Your task to perform on an android device: Search for Mexican restaurants on Maps Image 0: 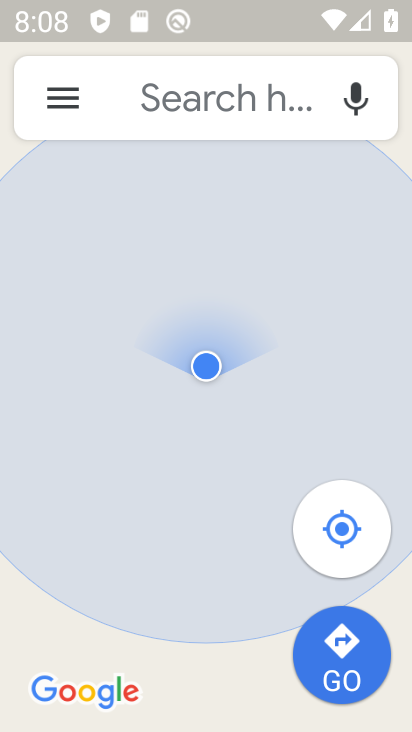
Step 0: click (207, 99)
Your task to perform on an android device: Search for Mexican restaurants on Maps Image 1: 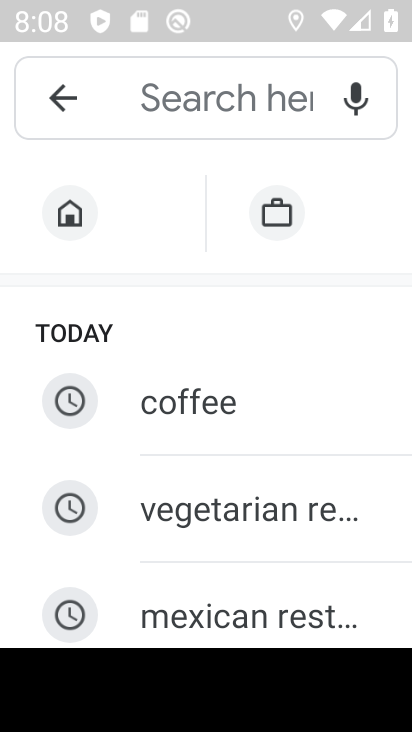
Step 1: click (252, 604)
Your task to perform on an android device: Search for Mexican restaurants on Maps Image 2: 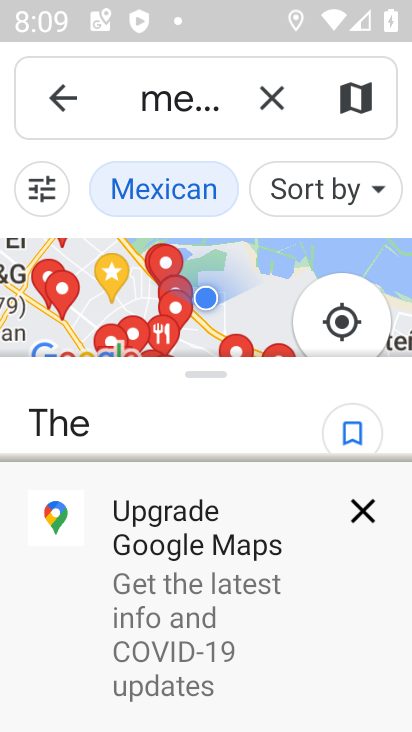
Step 2: task complete